Your task to perform on an android device: open app "Calculator" (install if not already installed) Image 0: 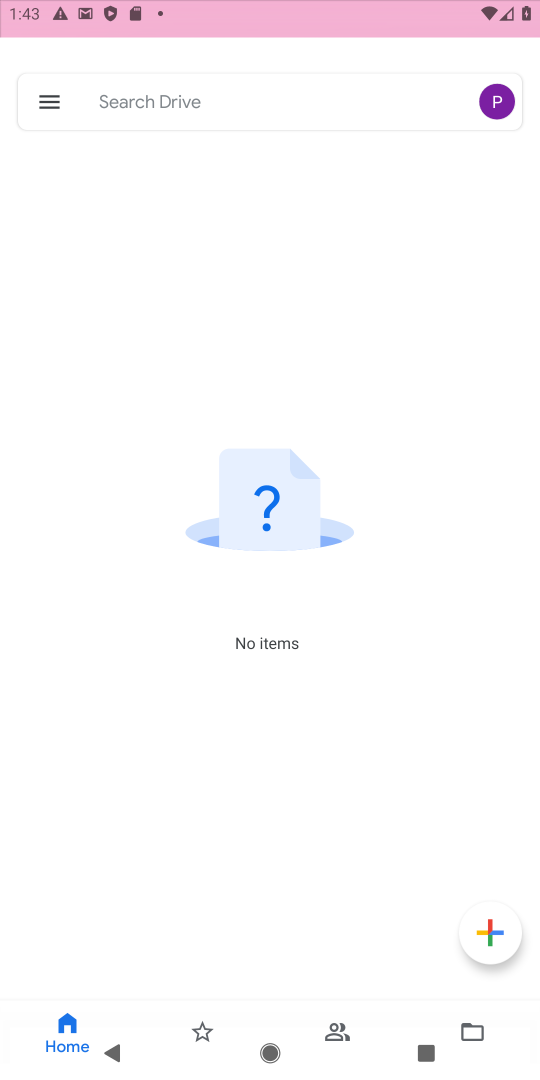
Step 0: press home button
Your task to perform on an android device: open app "Calculator" (install if not already installed) Image 1: 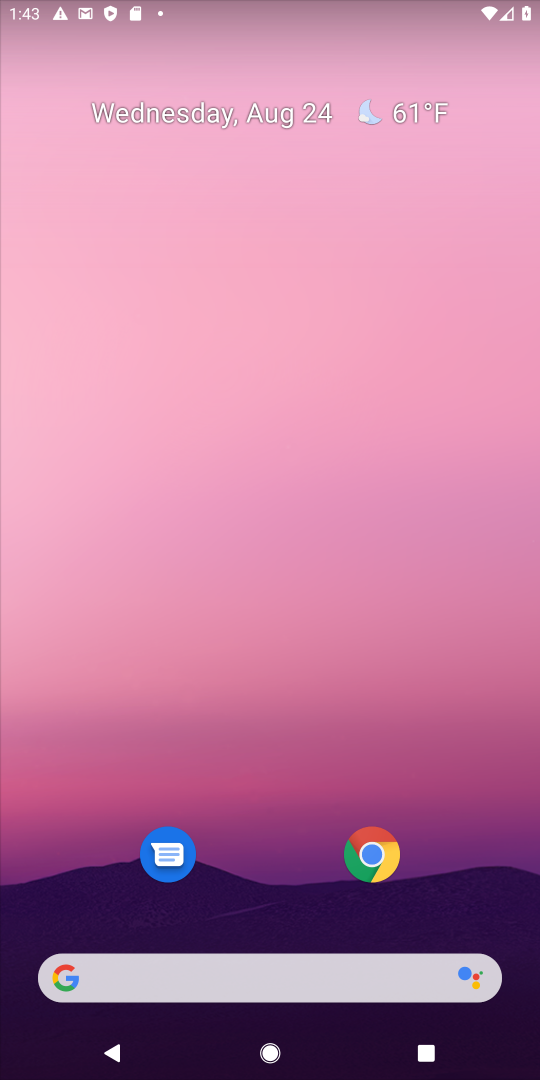
Step 1: drag from (466, 800) to (486, 160)
Your task to perform on an android device: open app "Calculator" (install if not already installed) Image 2: 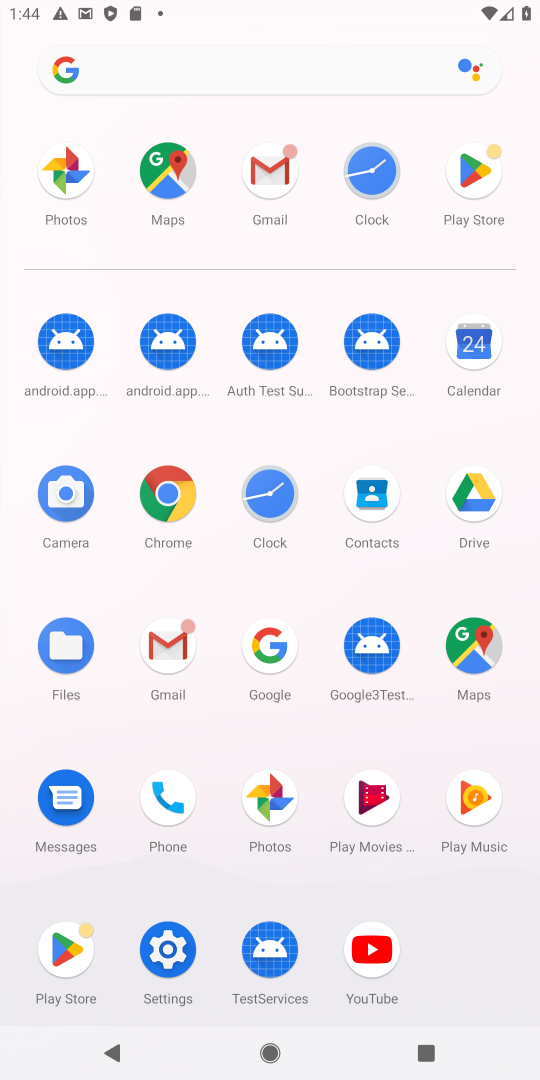
Step 2: click (478, 183)
Your task to perform on an android device: open app "Calculator" (install if not already installed) Image 3: 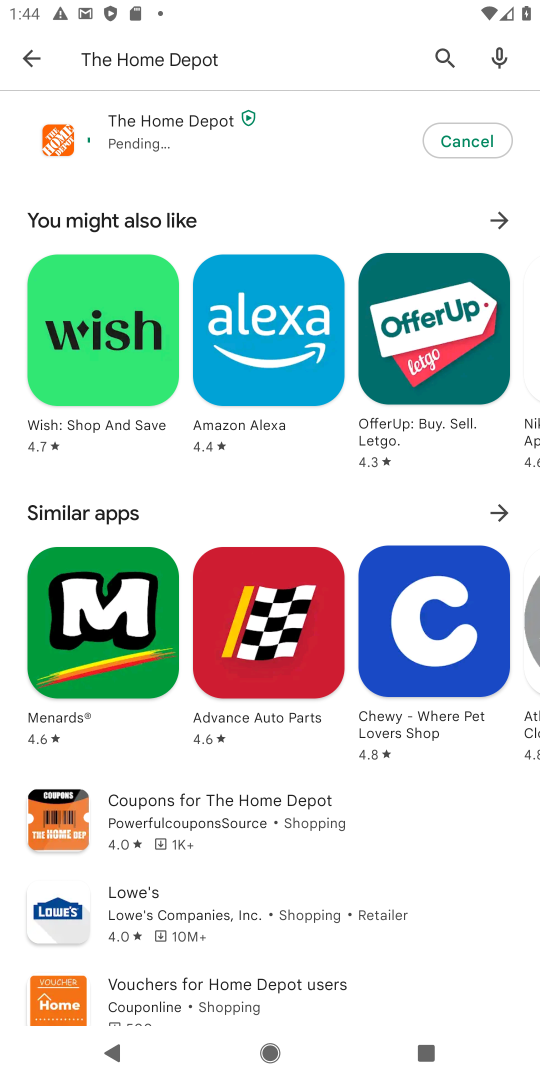
Step 3: press back button
Your task to perform on an android device: open app "Calculator" (install if not already installed) Image 4: 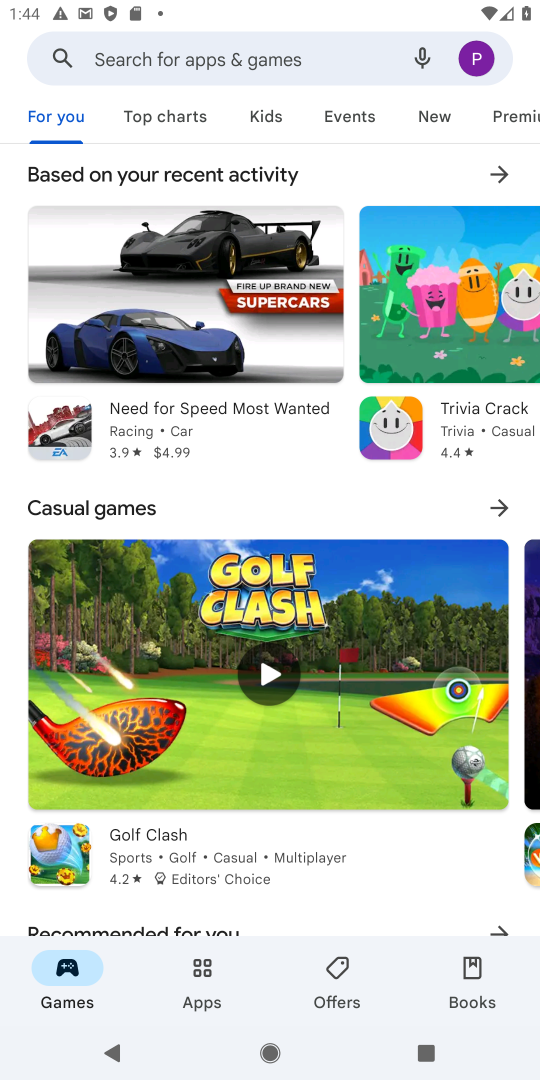
Step 4: click (246, 56)
Your task to perform on an android device: open app "Calculator" (install if not already installed) Image 5: 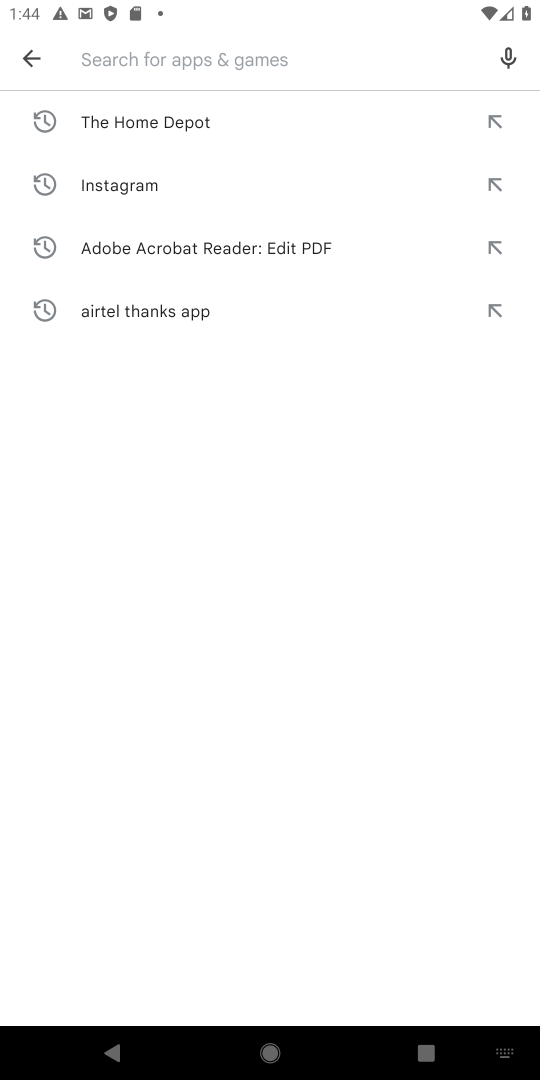
Step 5: press enter
Your task to perform on an android device: open app "Calculator" (install if not already installed) Image 6: 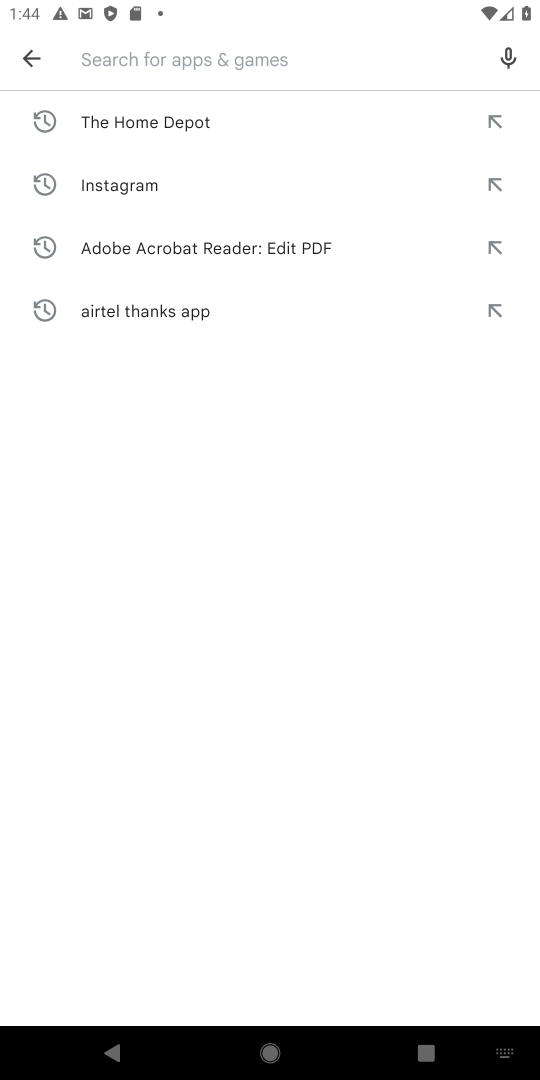
Step 6: type "Calculator"
Your task to perform on an android device: open app "Calculator" (install if not already installed) Image 7: 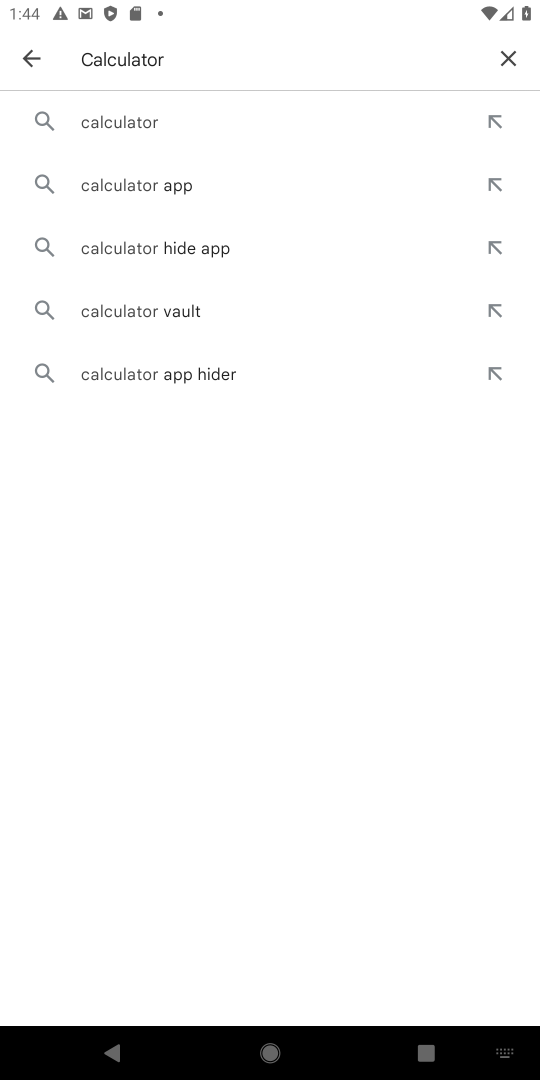
Step 7: click (185, 135)
Your task to perform on an android device: open app "Calculator" (install if not already installed) Image 8: 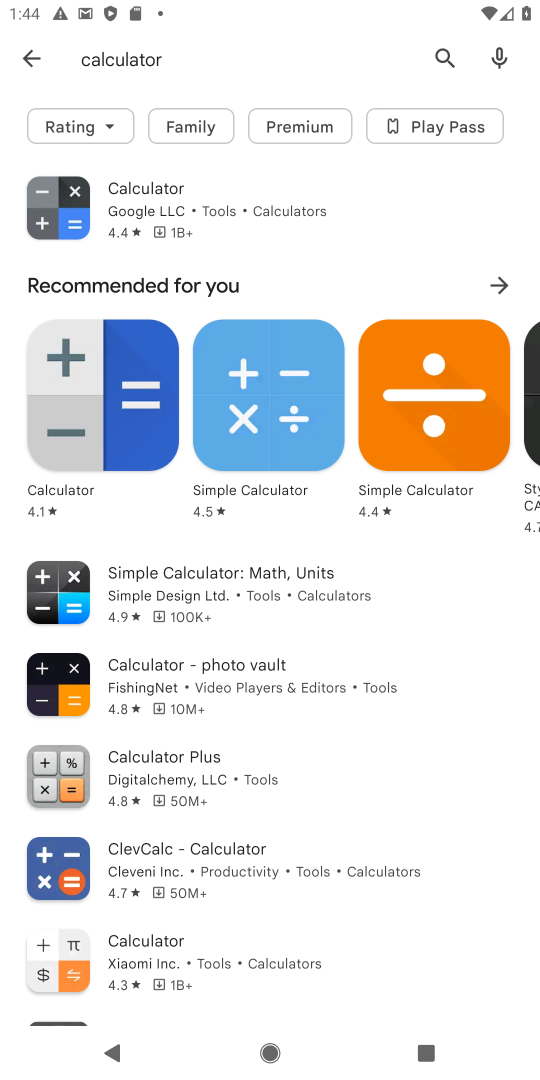
Step 8: click (194, 218)
Your task to perform on an android device: open app "Calculator" (install if not already installed) Image 9: 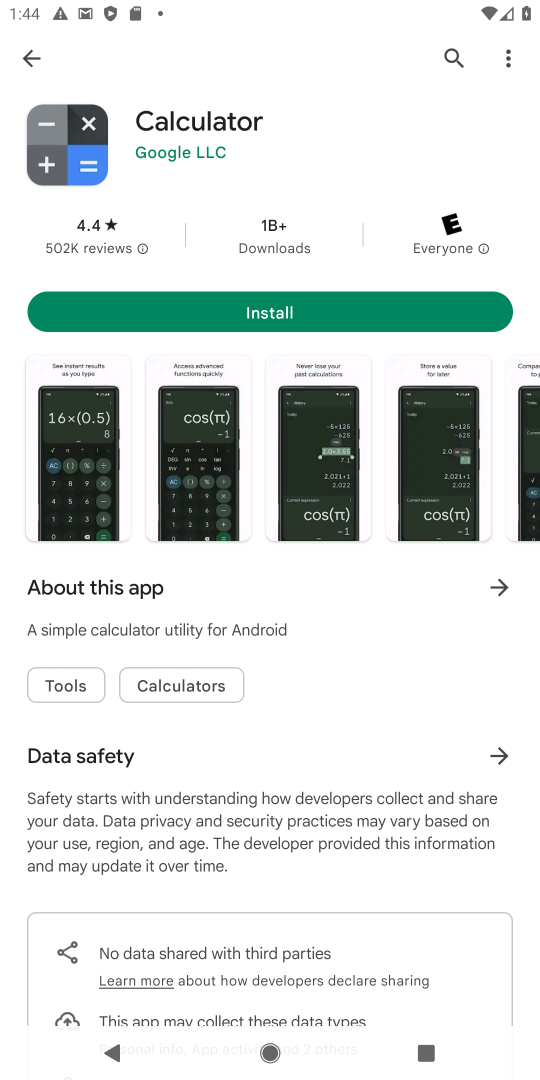
Step 9: click (355, 310)
Your task to perform on an android device: open app "Calculator" (install if not already installed) Image 10: 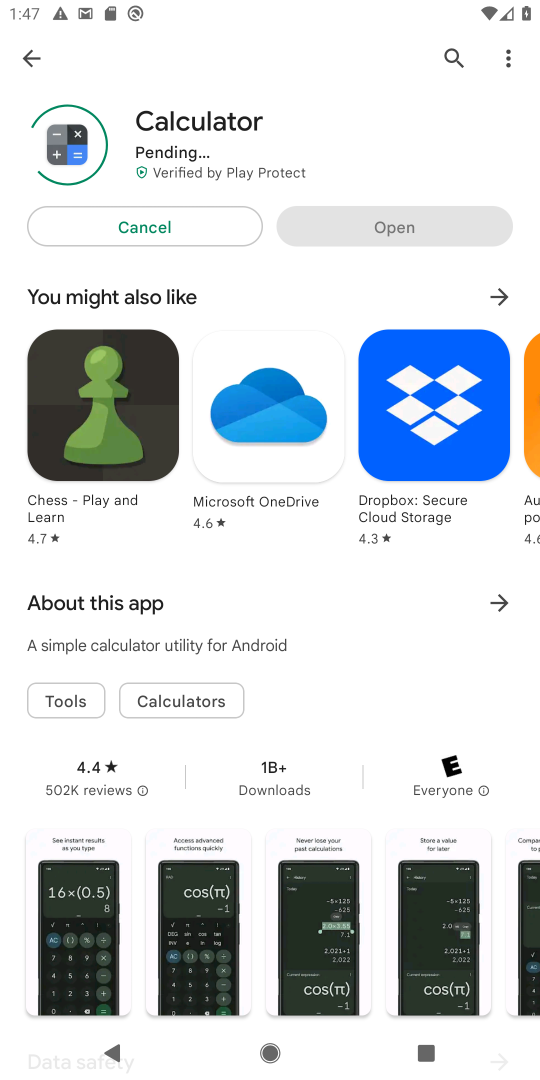
Step 10: task complete